Your task to perform on an android device: Open Google Chrome Image 0: 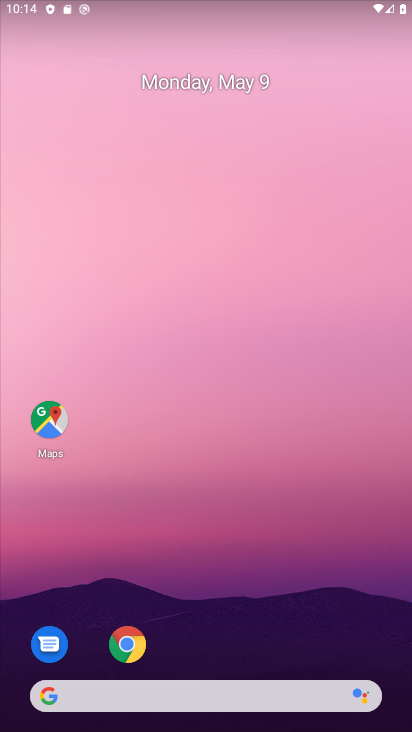
Step 0: click (140, 639)
Your task to perform on an android device: Open Google Chrome Image 1: 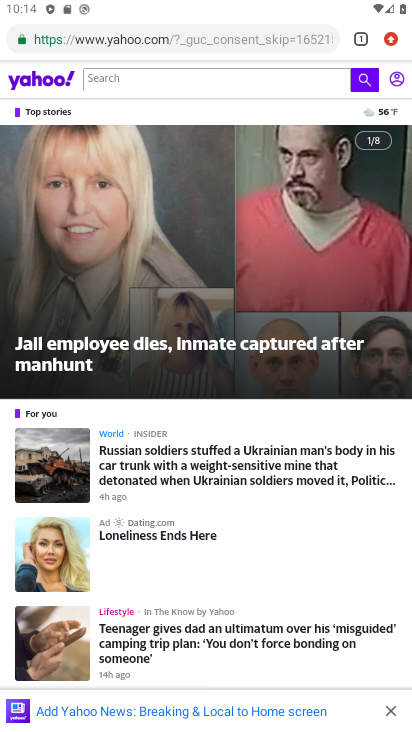
Step 1: task complete